Your task to perform on an android device: Check the news Image 0: 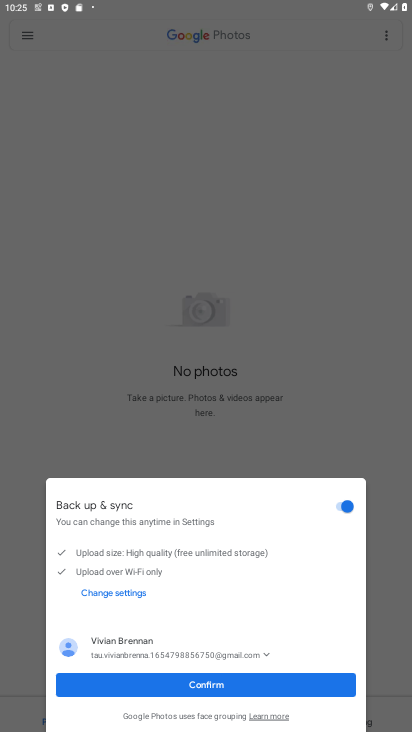
Step 0: press home button
Your task to perform on an android device: Check the news Image 1: 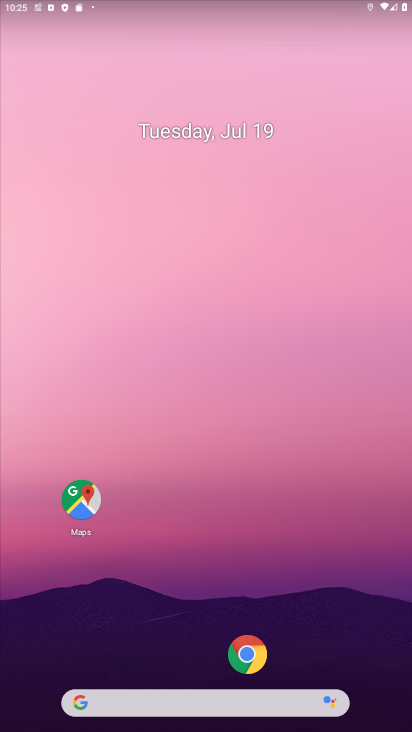
Step 1: click (193, 698)
Your task to perform on an android device: Check the news Image 2: 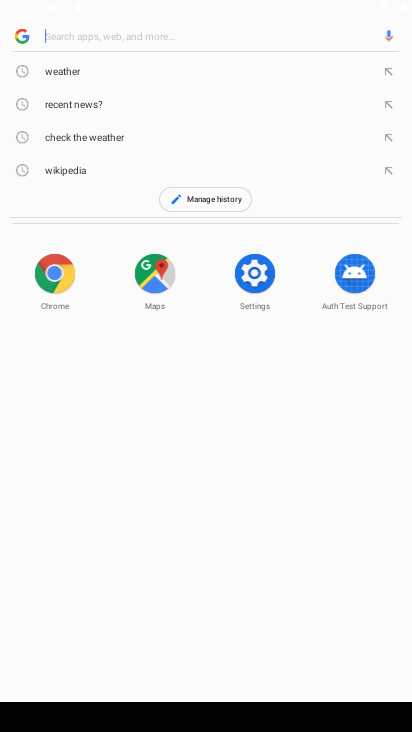
Step 2: click (27, 37)
Your task to perform on an android device: Check the news Image 3: 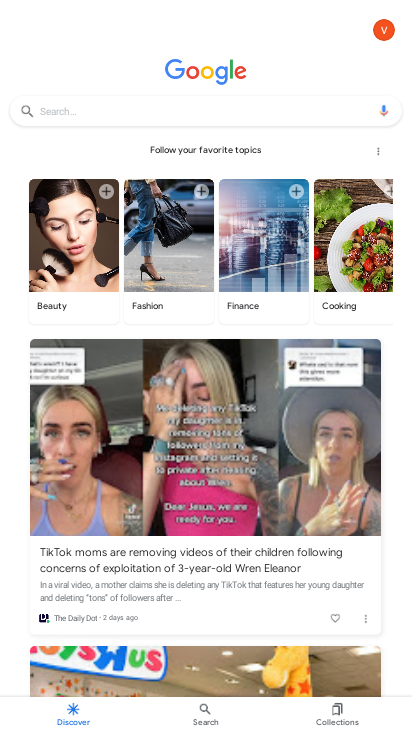
Step 3: task complete